Your task to perform on an android device: When is my next meeting? Image 0: 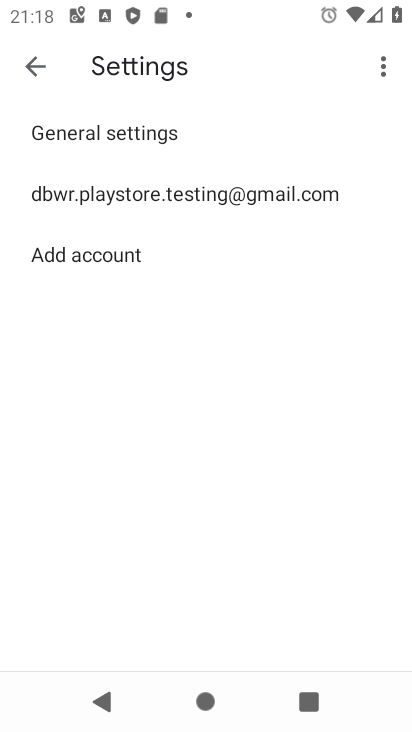
Step 0: press home button
Your task to perform on an android device: When is my next meeting? Image 1: 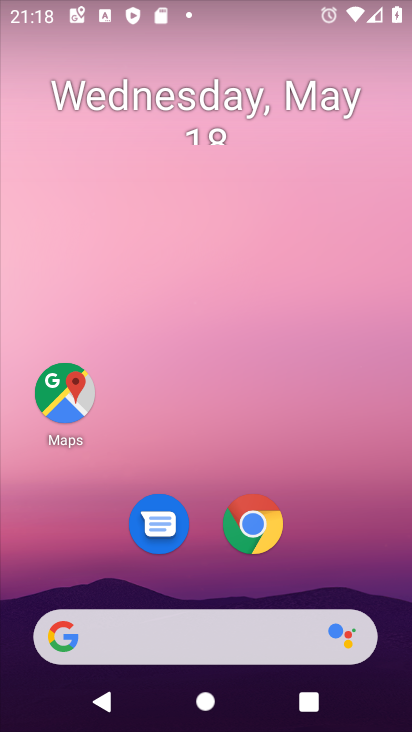
Step 1: drag from (336, 524) to (346, 59)
Your task to perform on an android device: When is my next meeting? Image 2: 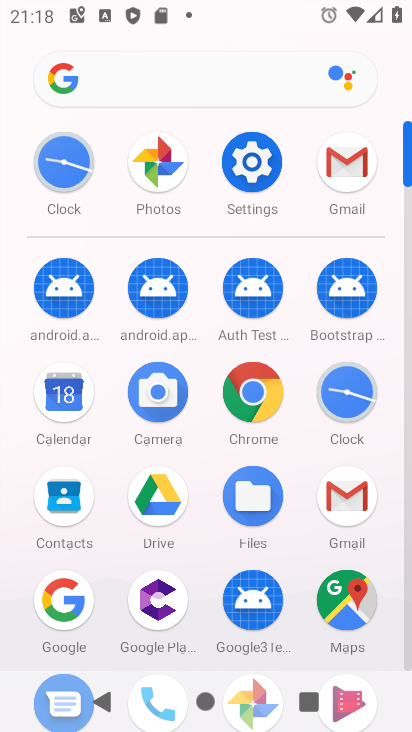
Step 2: click (256, 157)
Your task to perform on an android device: When is my next meeting? Image 3: 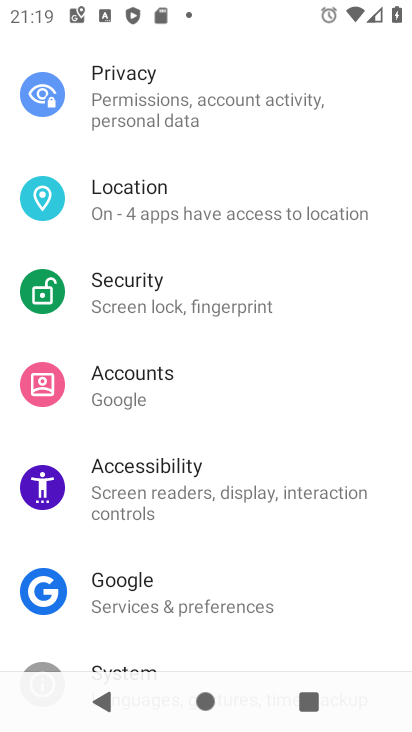
Step 3: press home button
Your task to perform on an android device: When is my next meeting? Image 4: 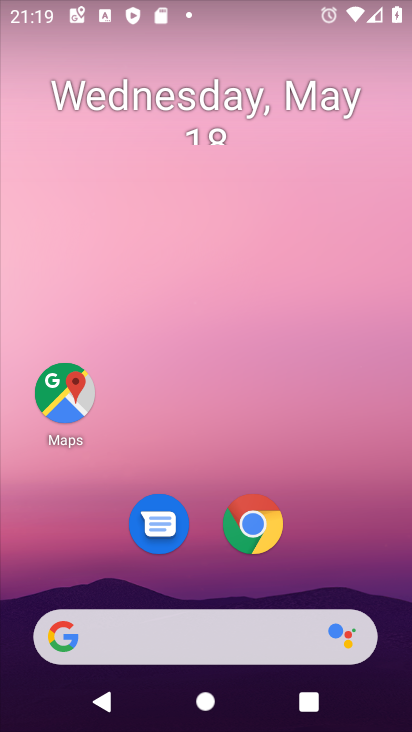
Step 4: drag from (233, 459) to (231, 77)
Your task to perform on an android device: When is my next meeting? Image 5: 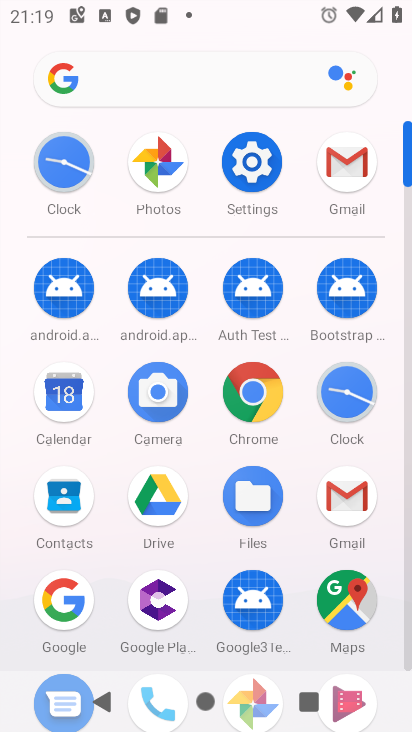
Step 5: click (73, 390)
Your task to perform on an android device: When is my next meeting? Image 6: 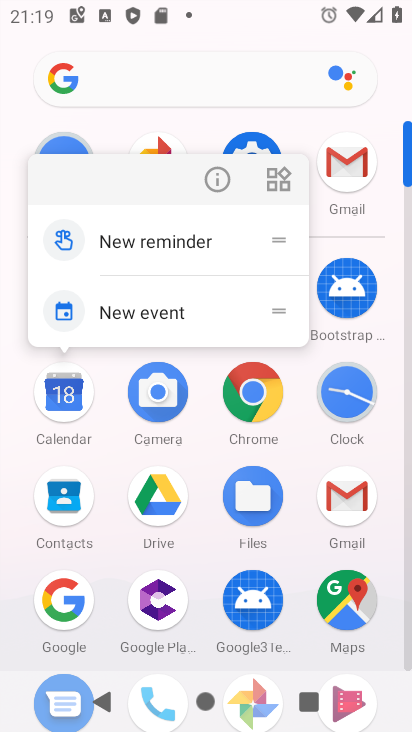
Step 6: click (59, 393)
Your task to perform on an android device: When is my next meeting? Image 7: 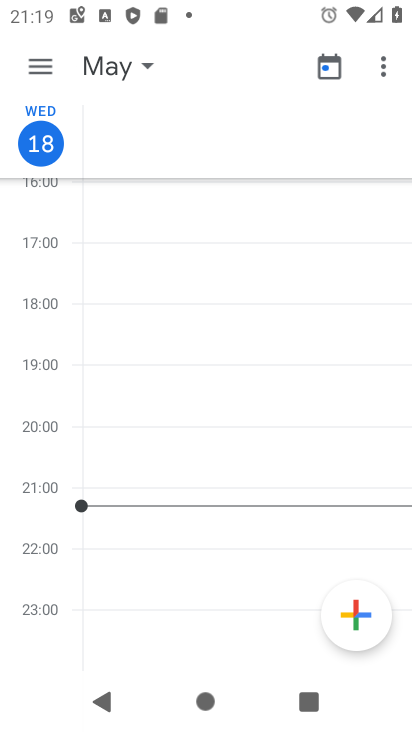
Step 7: click (41, 56)
Your task to perform on an android device: When is my next meeting? Image 8: 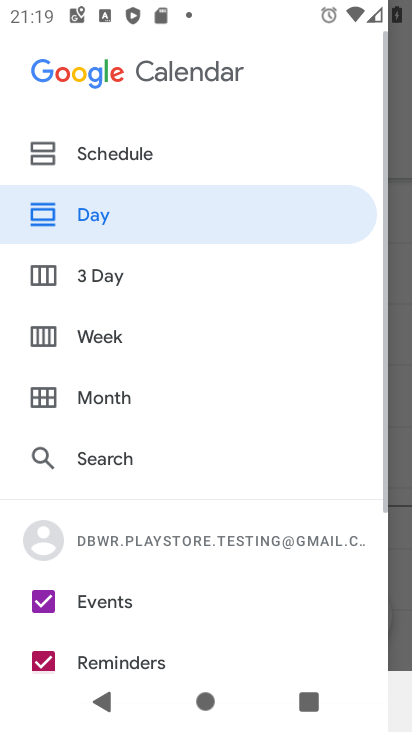
Step 8: click (99, 154)
Your task to perform on an android device: When is my next meeting? Image 9: 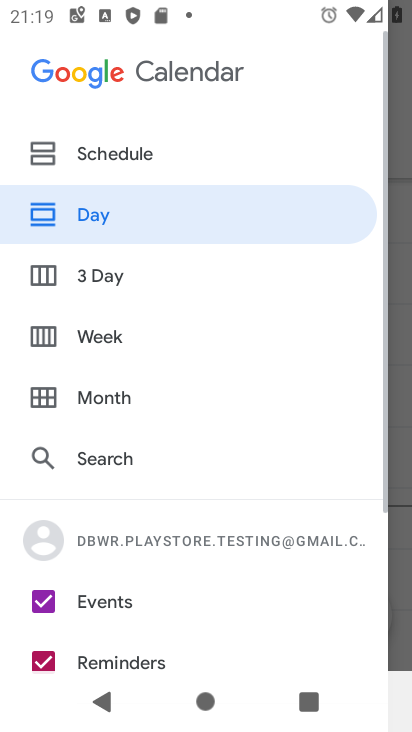
Step 9: click (119, 149)
Your task to perform on an android device: When is my next meeting? Image 10: 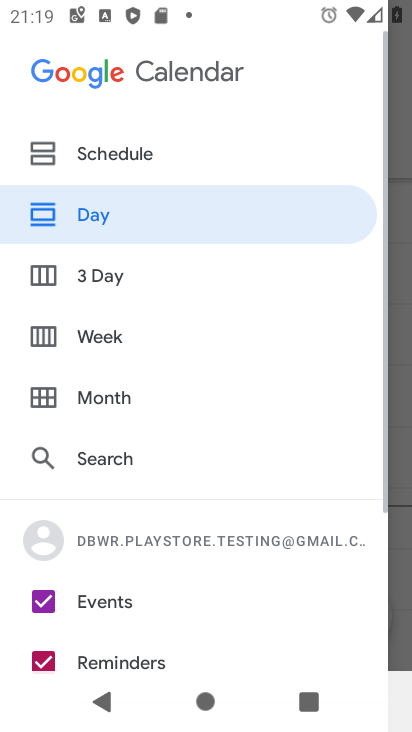
Step 10: click (30, 140)
Your task to perform on an android device: When is my next meeting? Image 11: 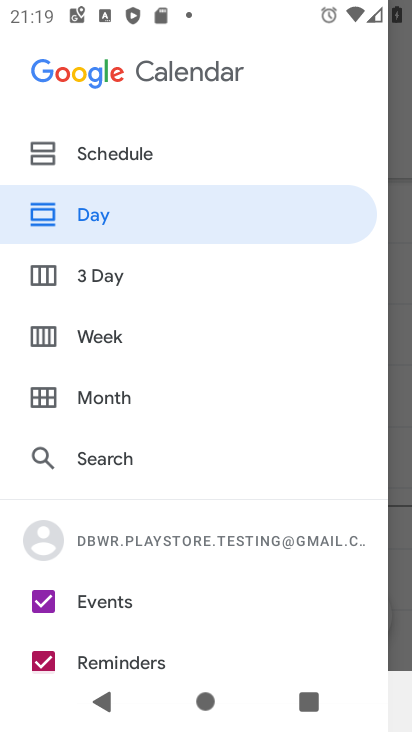
Step 11: click (41, 144)
Your task to perform on an android device: When is my next meeting? Image 12: 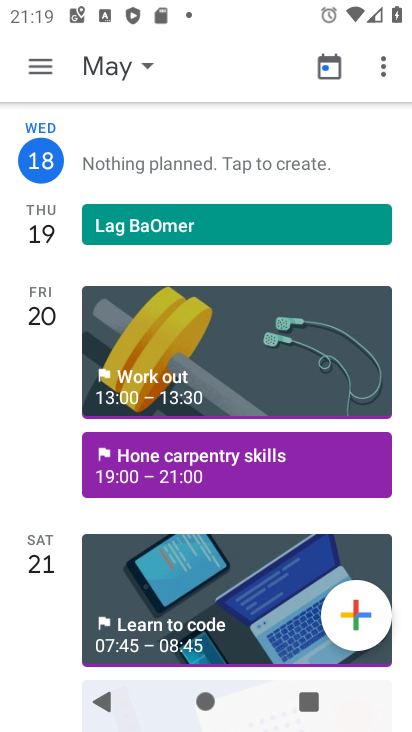
Step 12: task complete